Your task to perform on an android device: clear history in the chrome app Image 0: 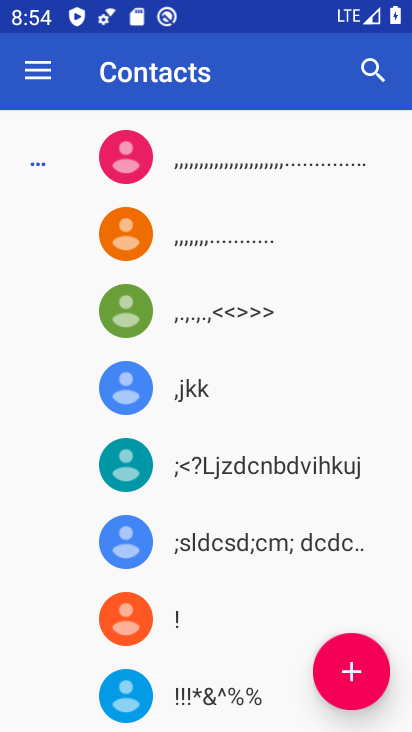
Step 0: press home button
Your task to perform on an android device: clear history in the chrome app Image 1: 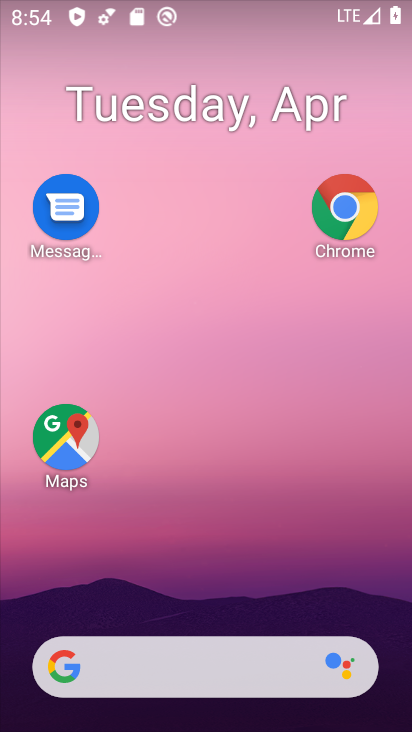
Step 1: drag from (212, 603) to (325, 32)
Your task to perform on an android device: clear history in the chrome app Image 2: 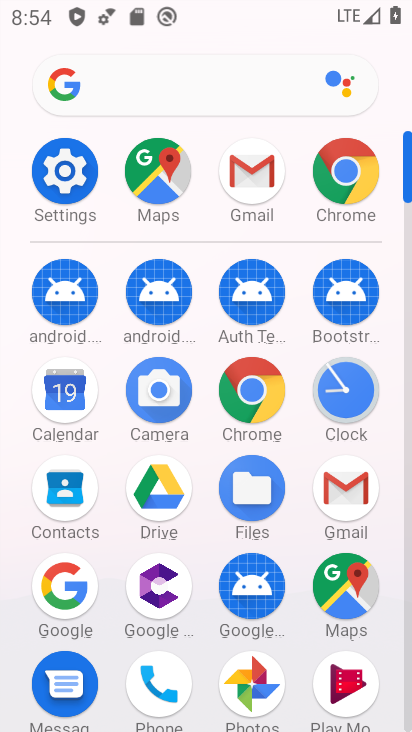
Step 2: click (248, 431)
Your task to perform on an android device: clear history in the chrome app Image 3: 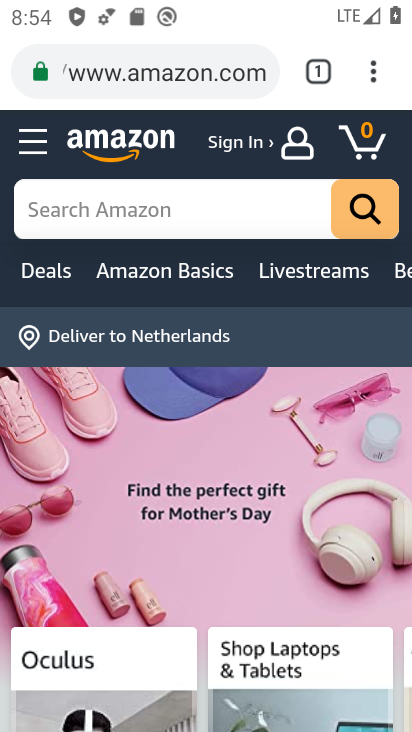
Step 3: click (361, 85)
Your task to perform on an android device: clear history in the chrome app Image 4: 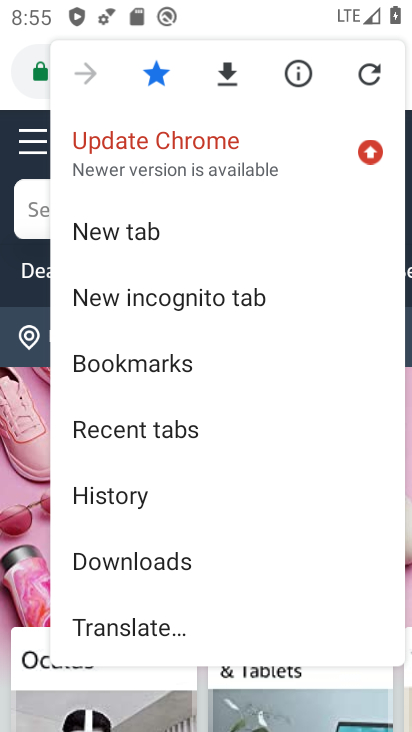
Step 4: click (149, 493)
Your task to perform on an android device: clear history in the chrome app Image 5: 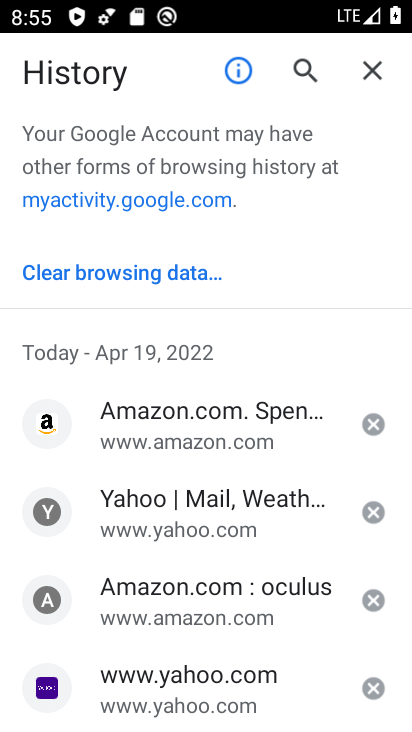
Step 5: click (80, 272)
Your task to perform on an android device: clear history in the chrome app Image 6: 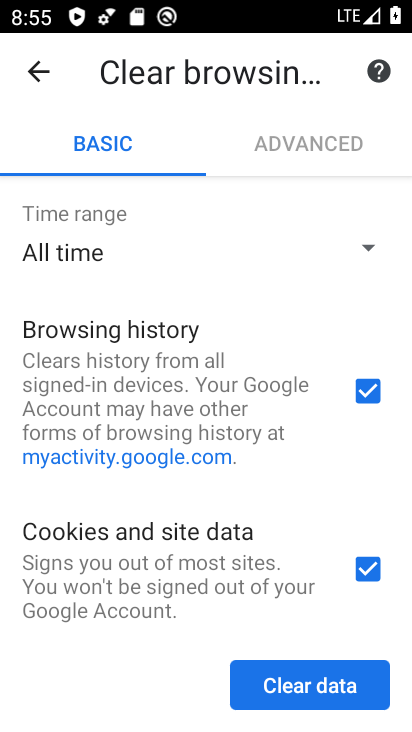
Step 6: click (337, 674)
Your task to perform on an android device: clear history in the chrome app Image 7: 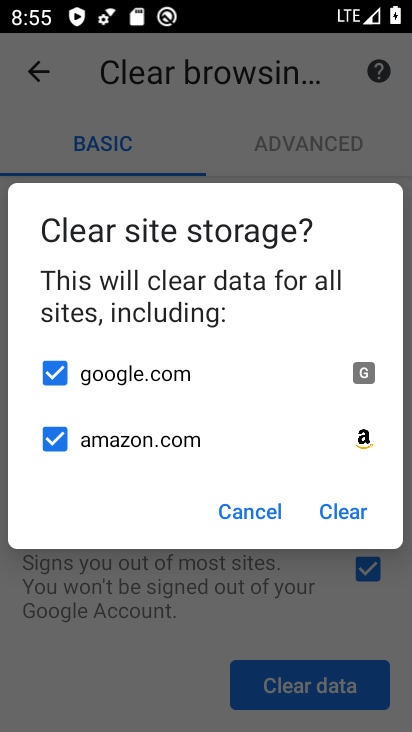
Step 7: click (332, 499)
Your task to perform on an android device: clear history in the chrome app Image 8: 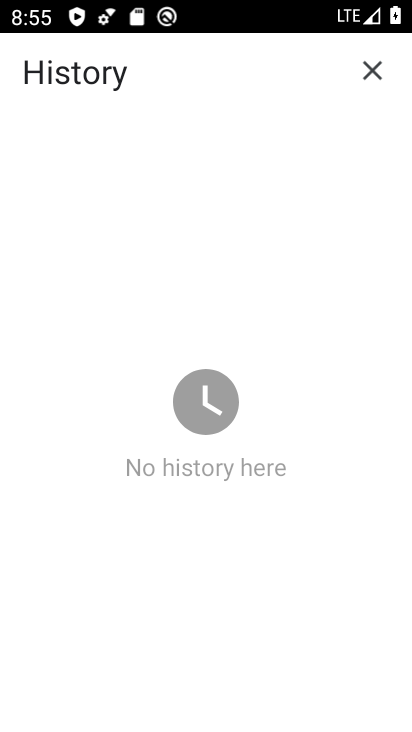
Step 8: task complete